Your task to perform on an android device: open app "Reddit" (install if not already installed) Image 0: 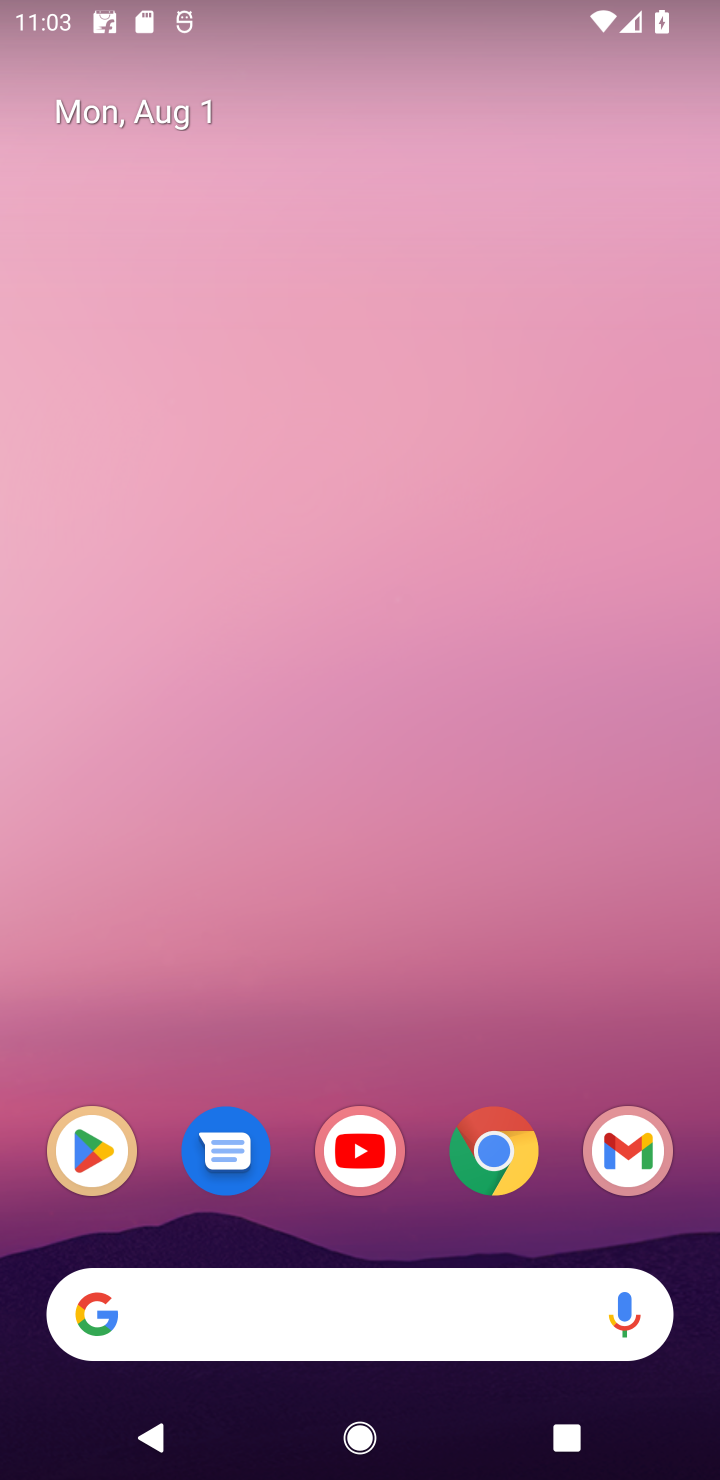
Step 0: click (90, 1135)
Your task to perform on an android device: open app "Reddit" (install if not already installed) Image 1: 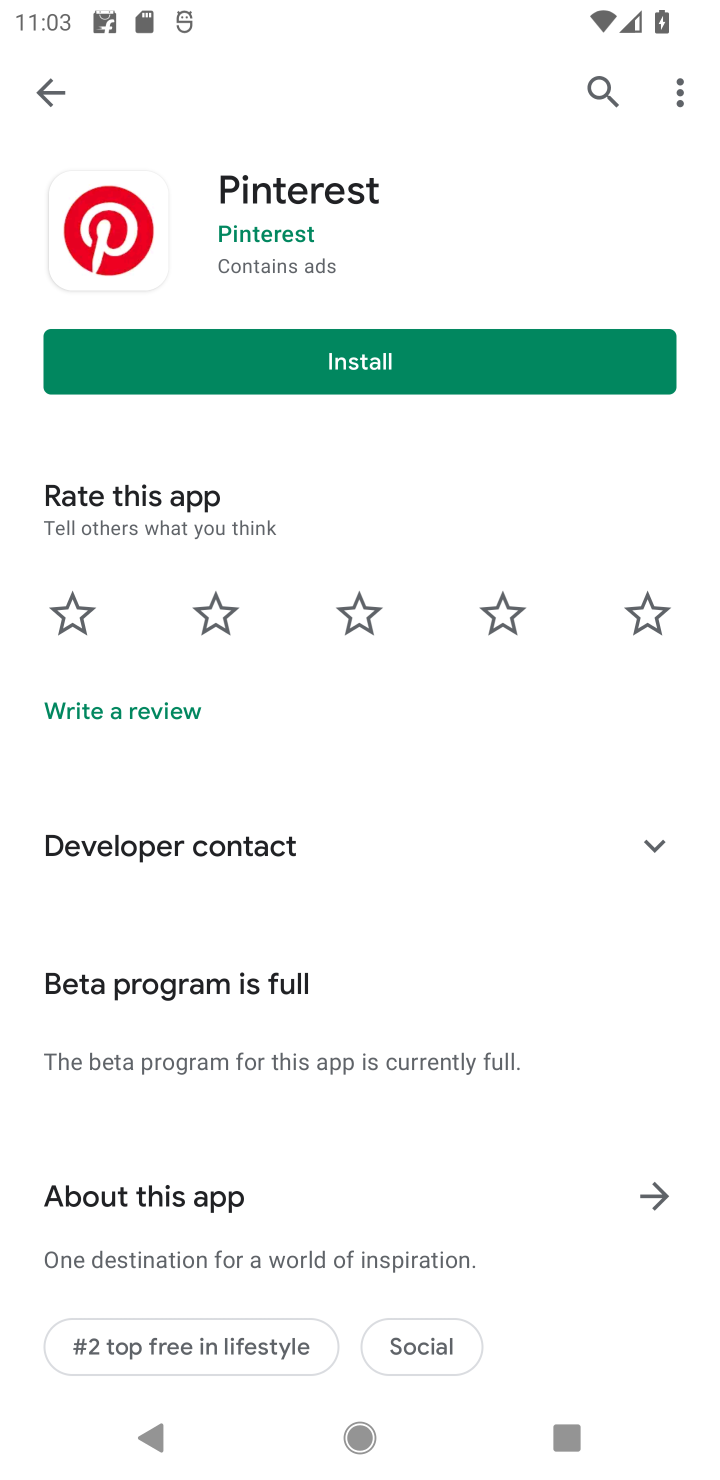
Step 1: click (597, 96)
Your task to perform on an android device: open app "Reddit" (install if not already installed) Image 2: 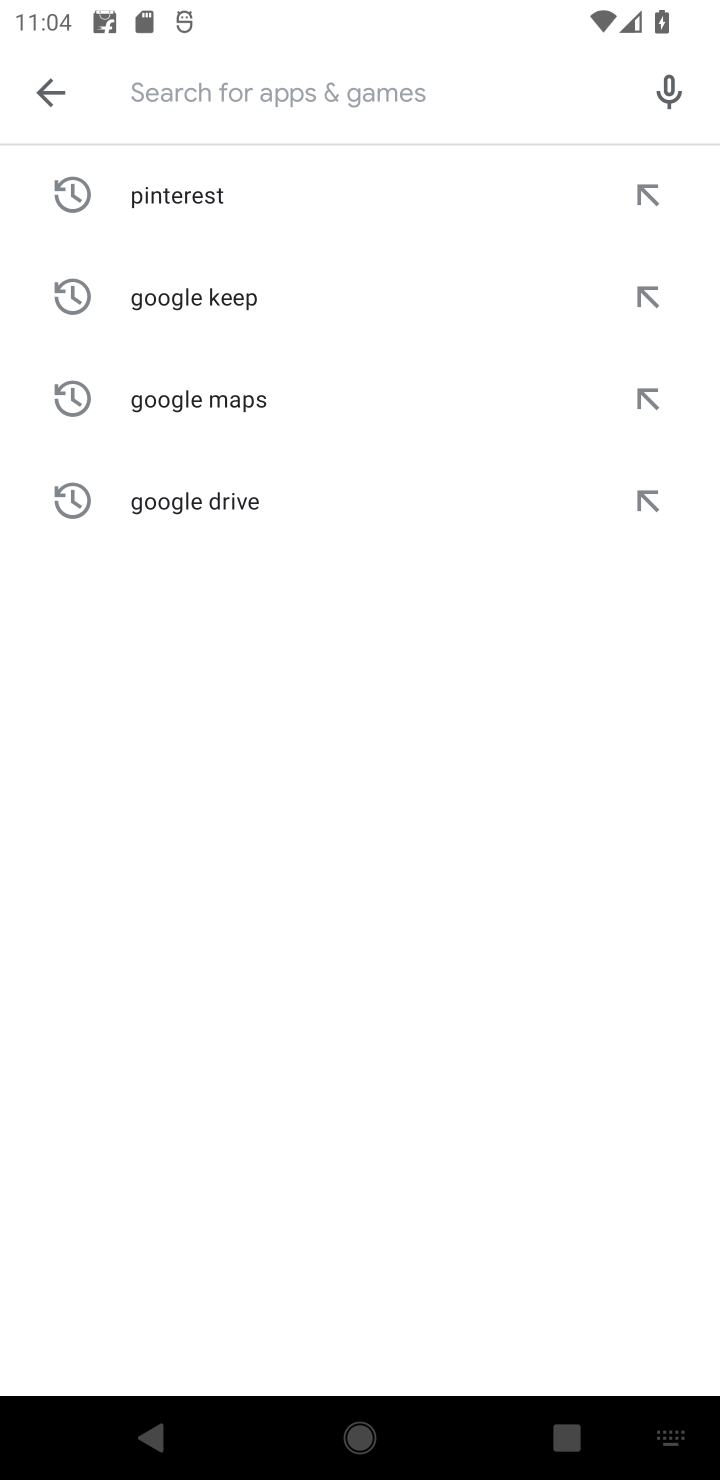
Step 2: type "Reddit"
Your task to perform on an android device: open app "Reddit" (install if not already installed) Image 3: 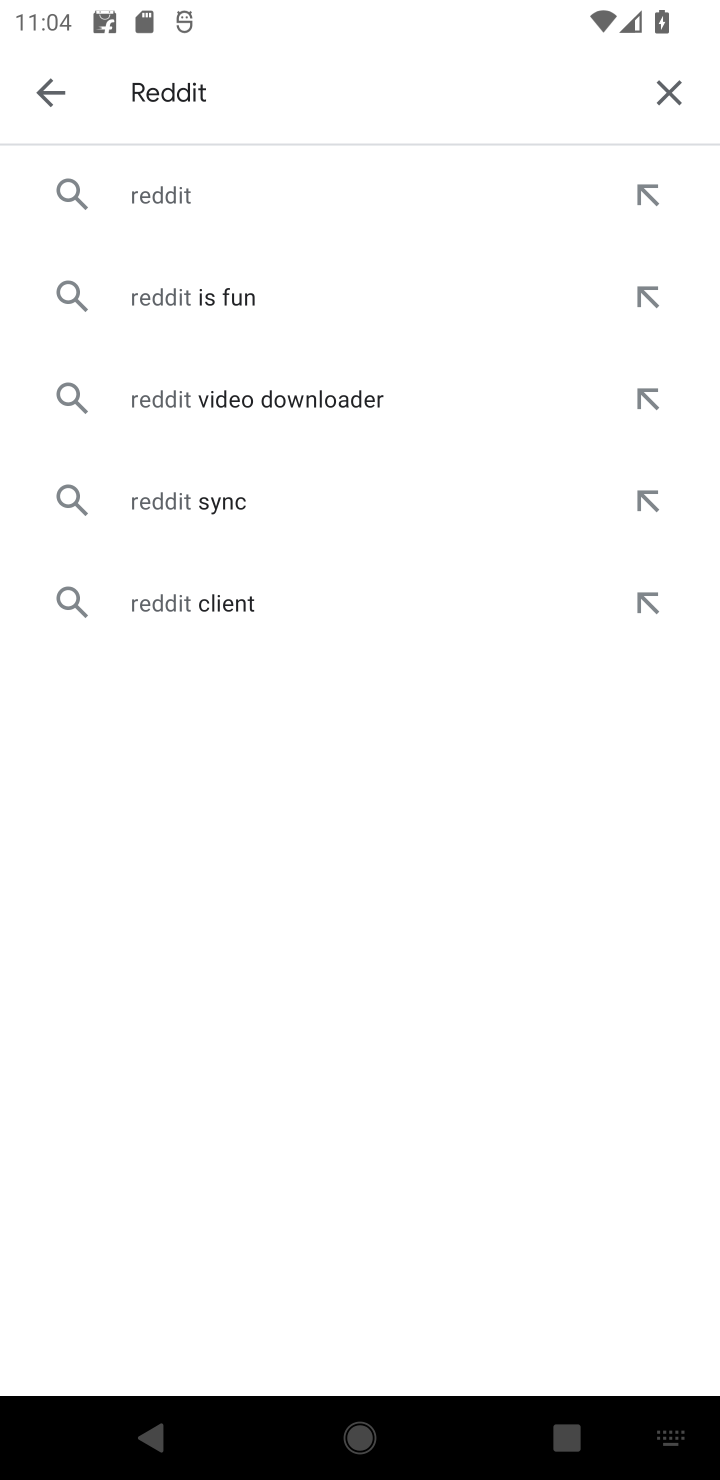
Step 3: click (179, 208)
Your task to perform on an android device: open app "Reddit" (install if not already installed) Image 4: 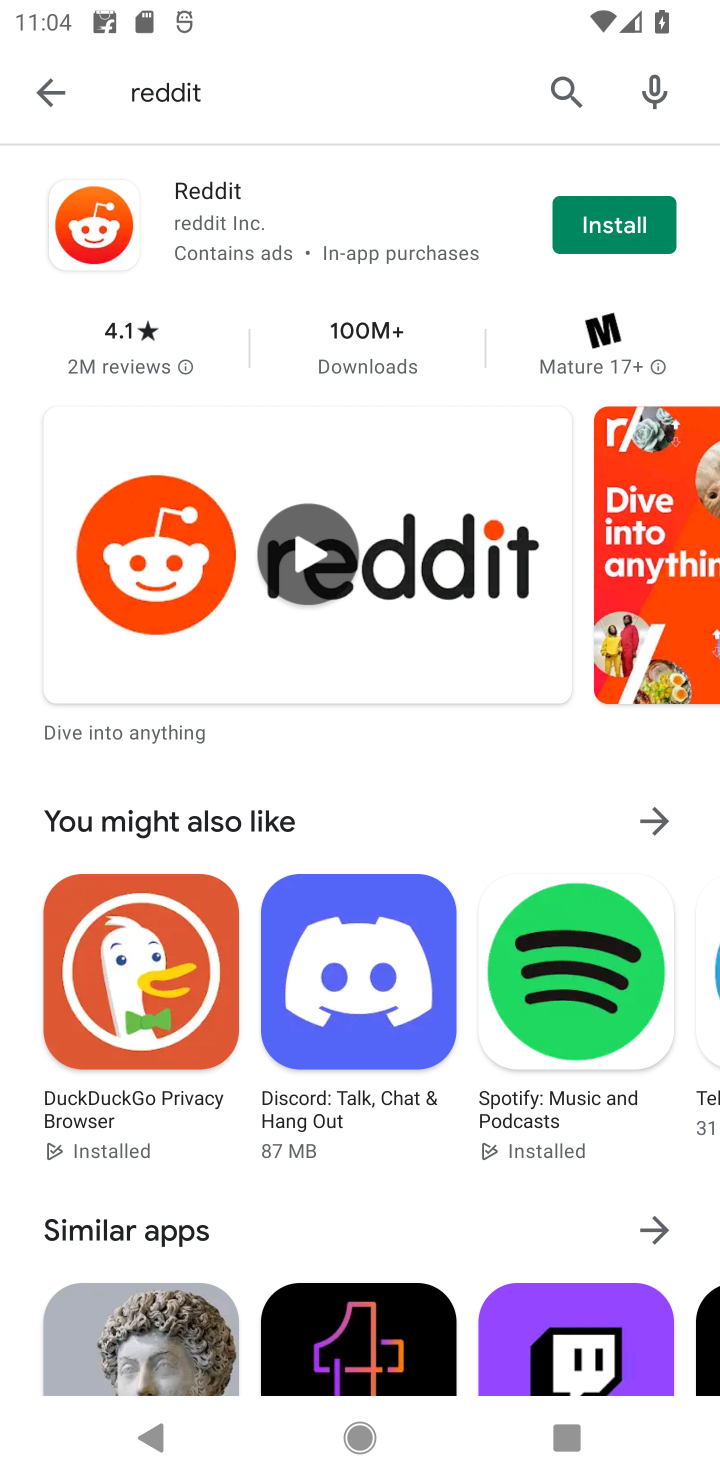
Step 4: click (595, 224)
Your task to perform on an android device: open app "Reddit" (install if not already installed) Image 5: 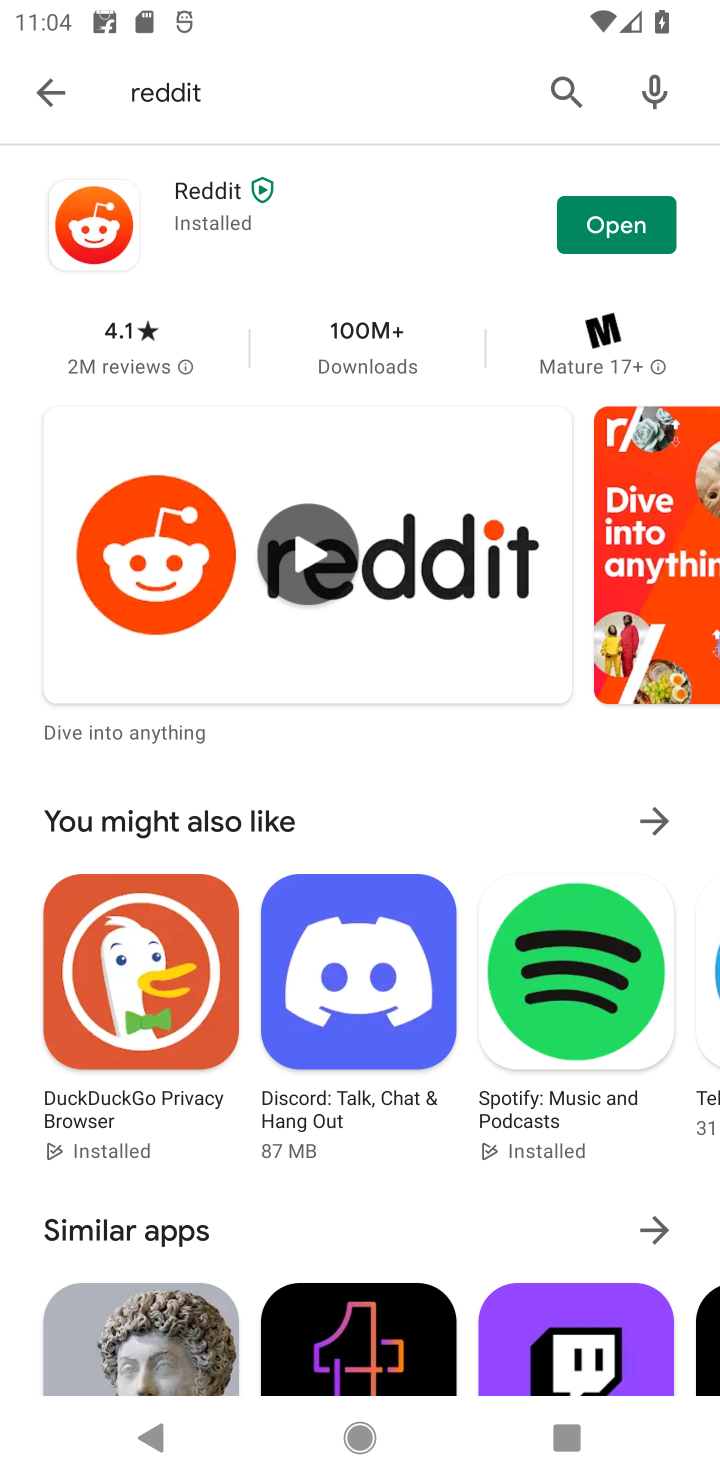
Step 5: click (585, 222)
Your task to perform on an android device: open app "Reddit" (install if not already installed) Image 6: 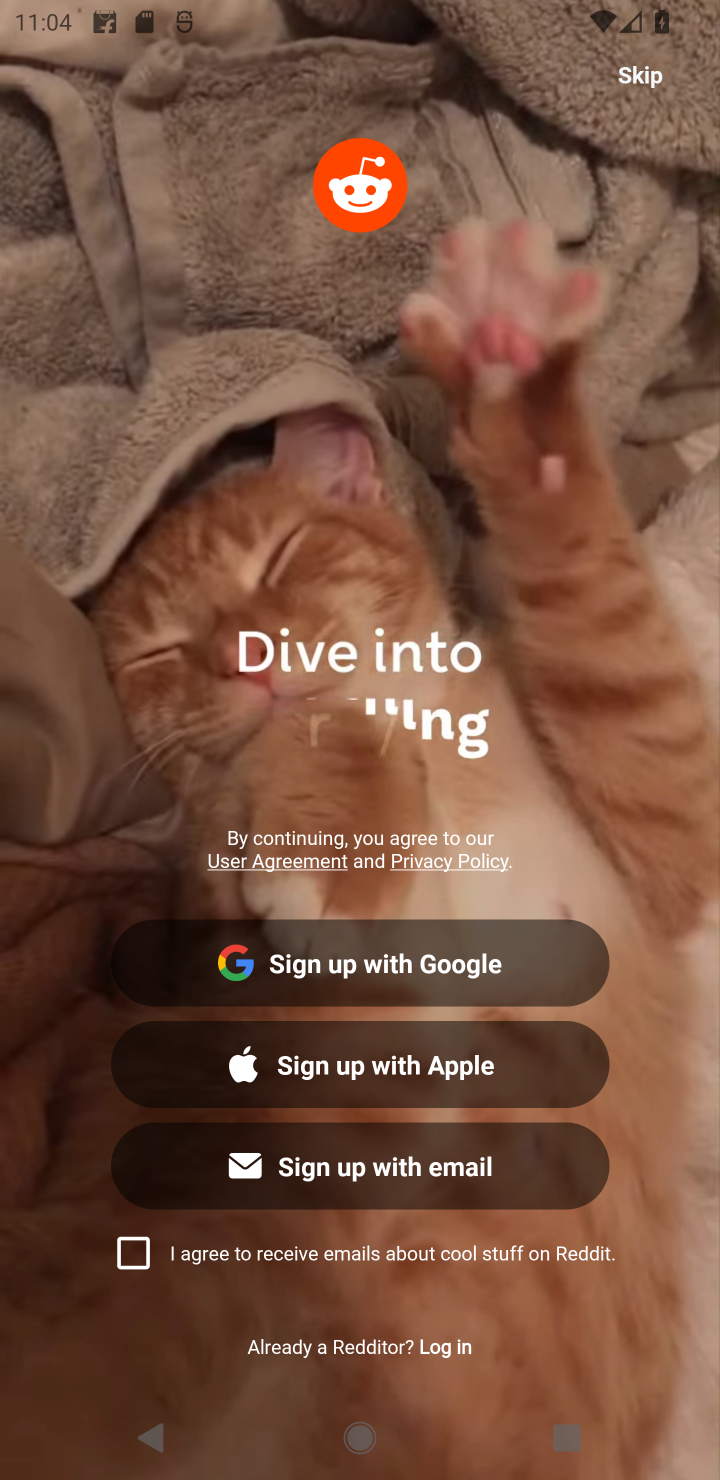
Step 6: task complete